Your task to perform on an android device: manage bookmarks in the chrome app Image 0: 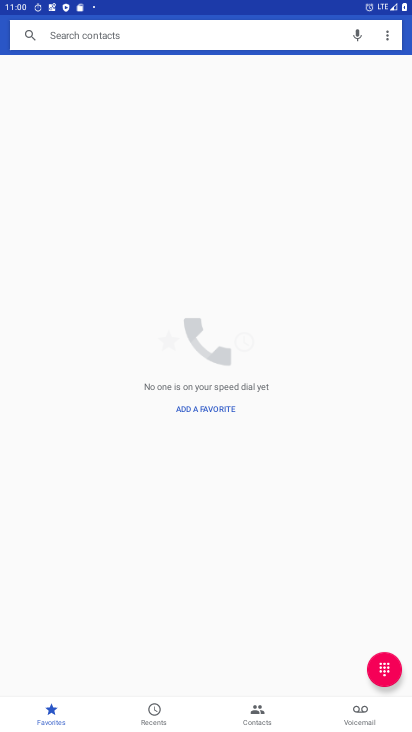
Step 0: press home button
Your task to perform on an android device: manage bookmarks in the chrome app Image 1: 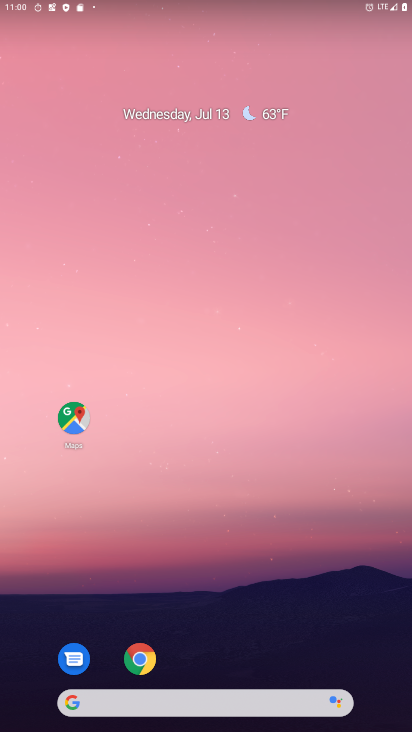
Step 1: drag from (324, 607) to (201, 135)
Your task to perform on an android device: manage bookmarks in the chrome app Image 2: 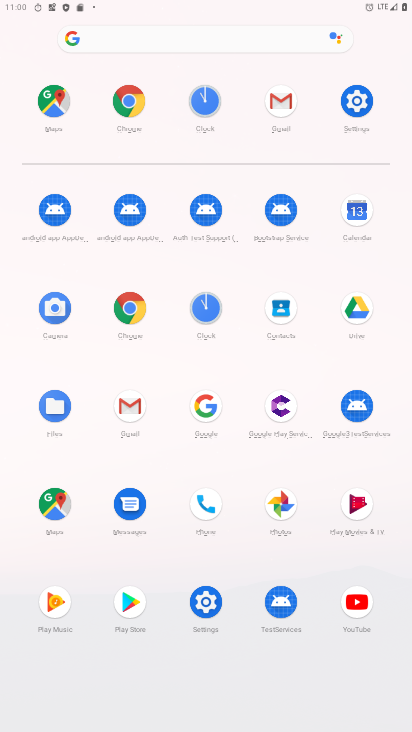
Step 2: click (130, 307)
Your task to perform on an android device: manage bookmarks in the chrome app Image 3: 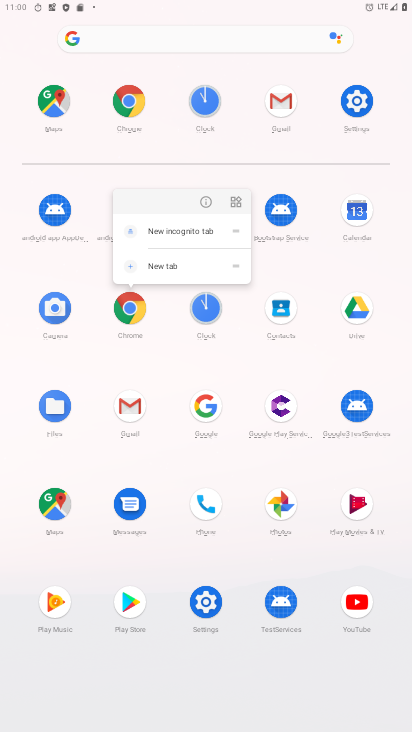
Step 3: click (130, 307)
Your task to perform on an android device: manage bookmarks in the chrome app Image 4: 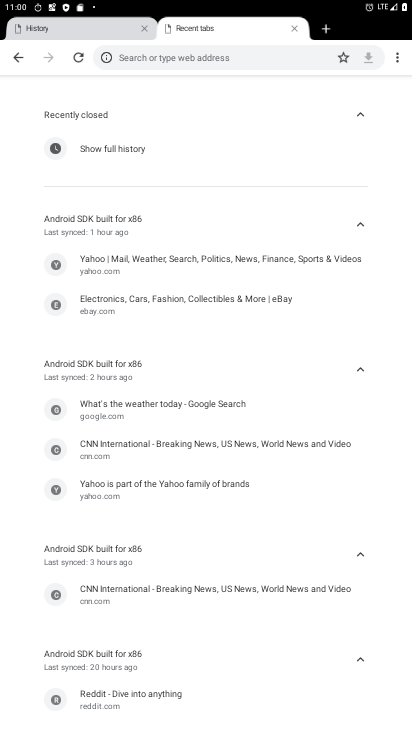
Step 4: drag from (392, 53) to (305, 124)
Your task to perform on an android device: manage bookmarks in the chrome app Image 5: 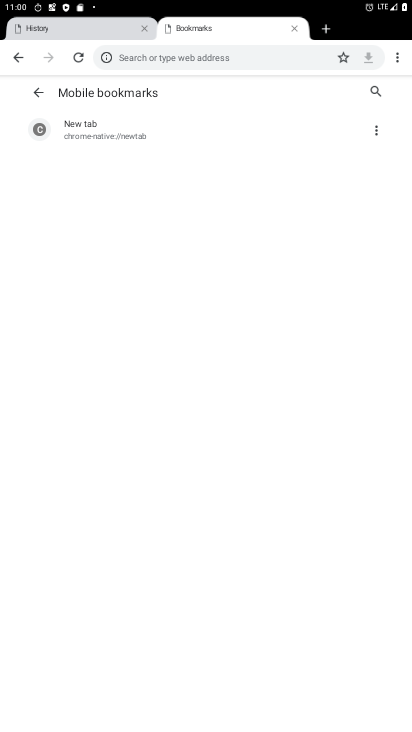
Step 5: click (375, 127)
Your task to perform on an android device: manage bookmarks in the chrome app Image 6: 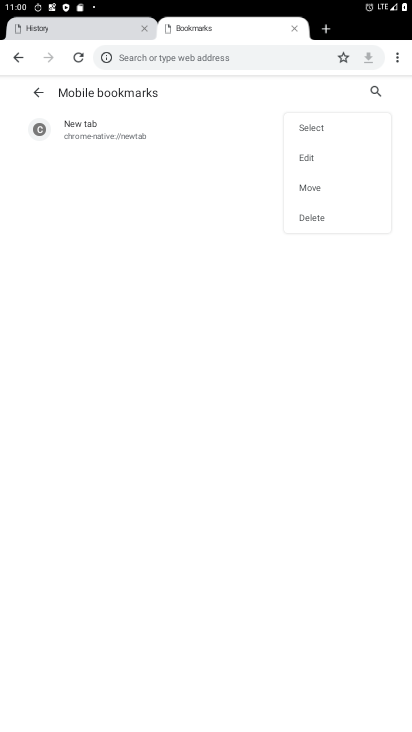
Step 6: click (316, 216)
Your task to perform on an android device: manage bookmarks in the chrome app Image 7: 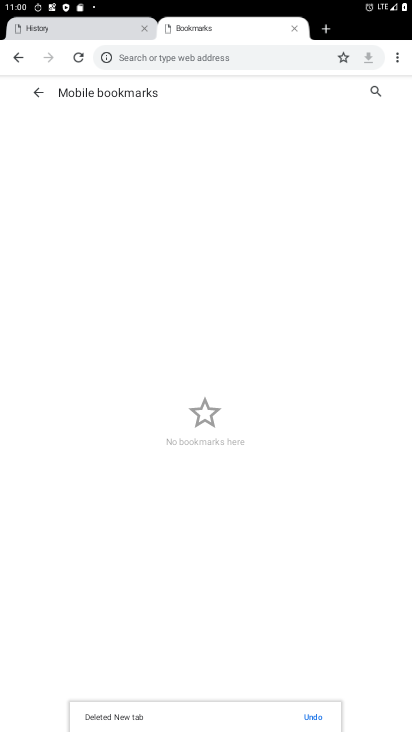
Step 7: task complete